Your task to perform on an android device: Open notification settings Image 0: 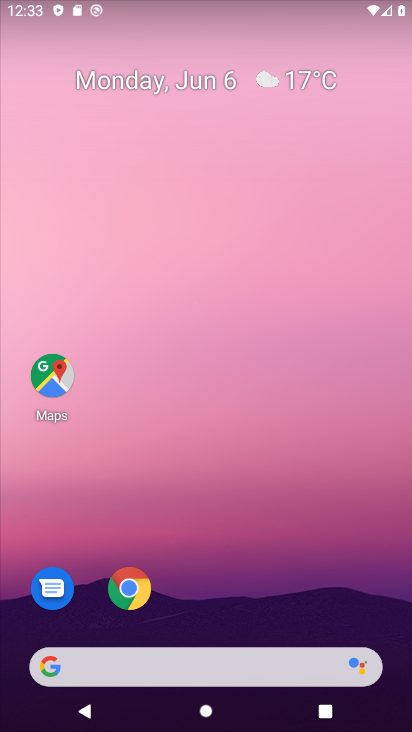
Step 0: drag from (306, 528) to (308, 65)
Your task to perform on an android device: Open notification settings Image 1: 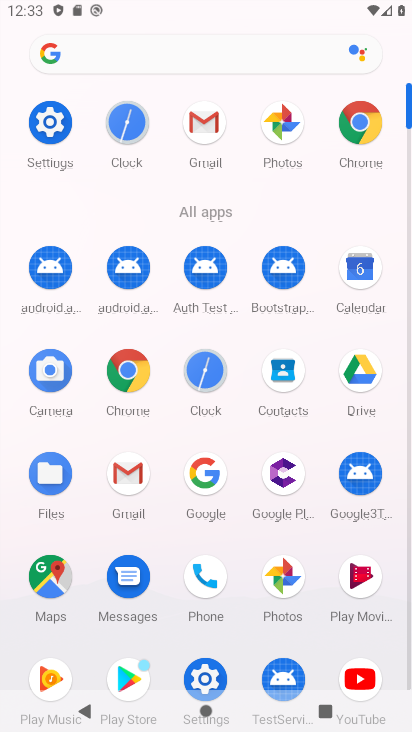
Step 1: click (56, 130)
Your task to perform on an android device: Open notification settings Image 2: 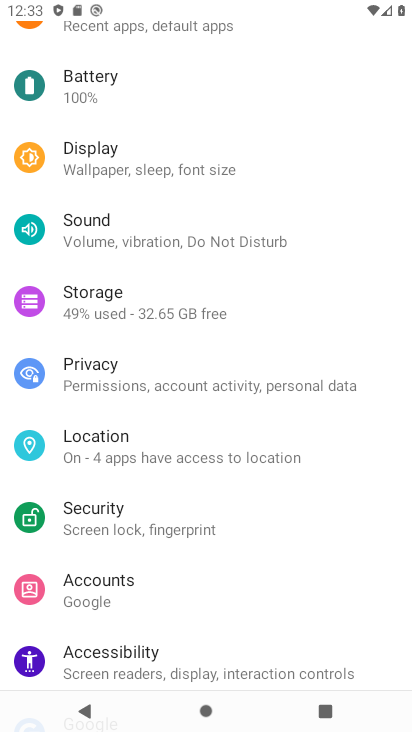
Step 2: drag from (200, 153) to (194, 512)
Your task to perform on an android device: Open notification settings Image 3: 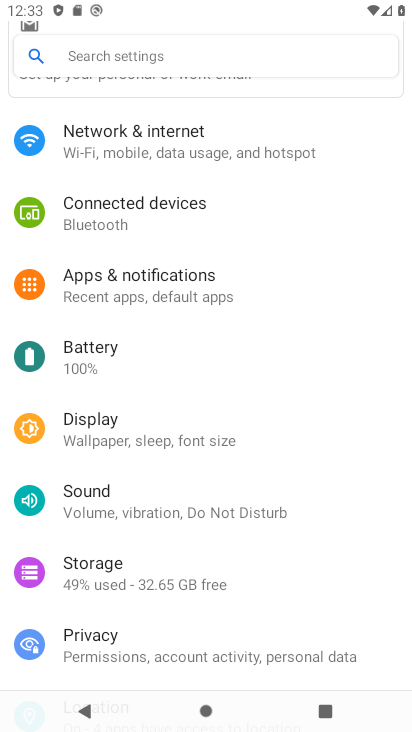
Step 3: click (158, 291)
Your task to perform on an android device: Open notification settings Image 4: 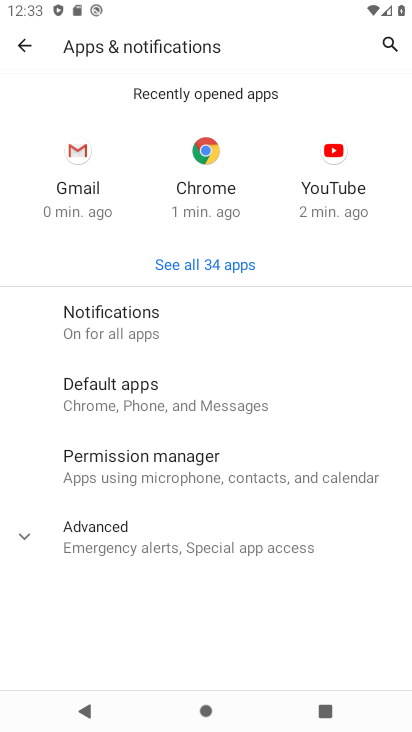
Step 4: click (129, 319)
Your task to perform on an android device: Open notification settings Image 5: 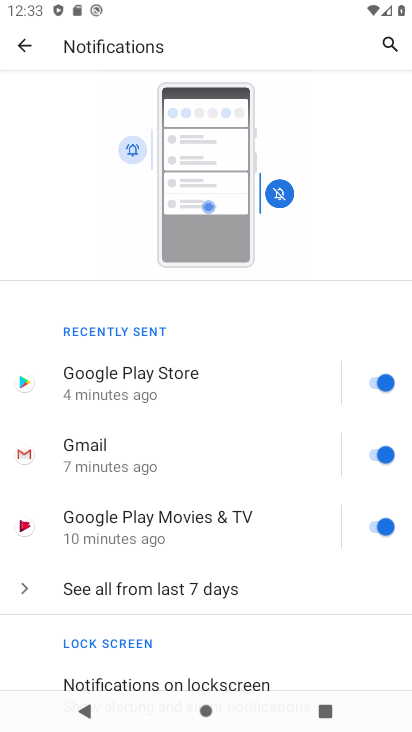
Step 5: task complete